Your task to perform on an android device: Open privacy settings Image 0: 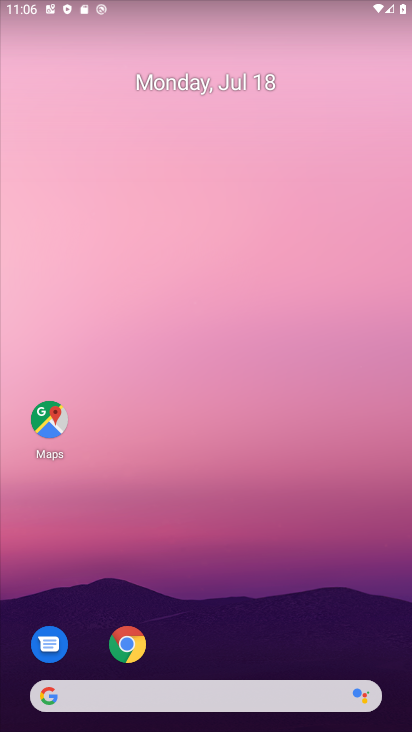
Step 0: drag from (212, 594) to (212, 275)
Your task to perform on an android device: Open privacy settings Image 1: 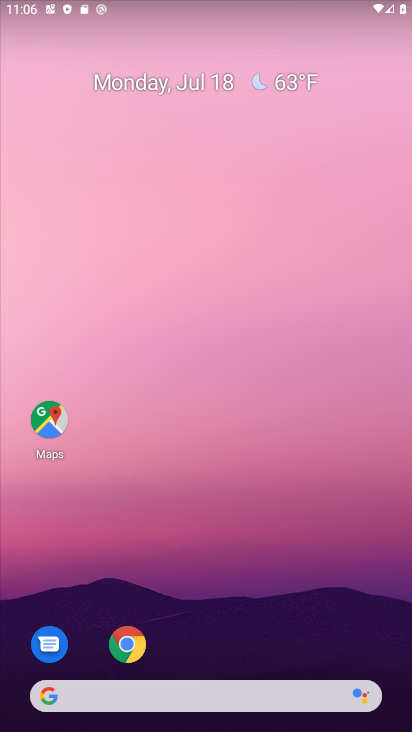
Step 1: drag from (217, 545) to (227, 80)
Your task to perform on an android device: Open privacy settings Image 2: 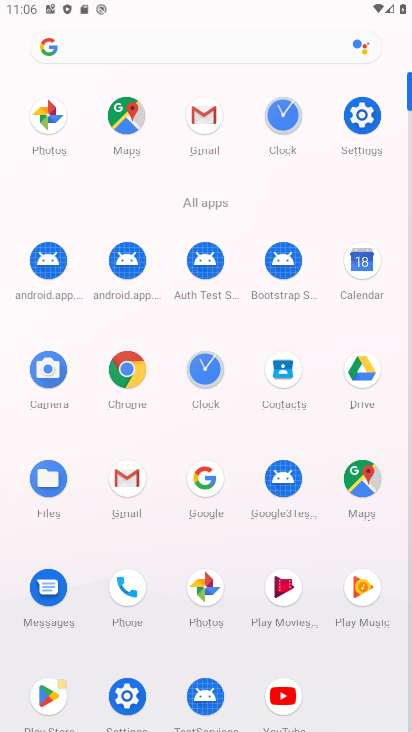
Step 2: click (361, 113)
Your task to perform on an android device: Open privacy settings Image 3: 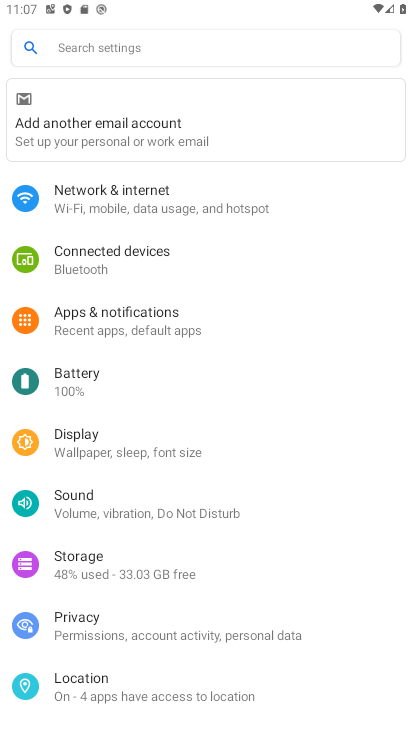
Step 3: click (95, 617)
Your task to perform on an android device: Open privacy settings Image 4: 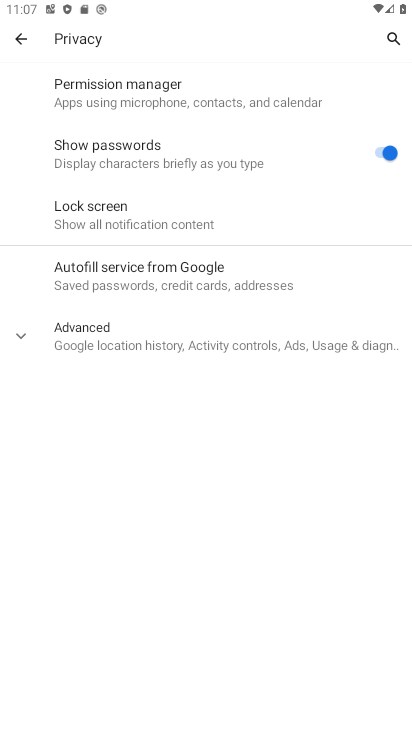
Step 4: task complete